Your task to perform on an android device: change the clock display to digital Image 0: 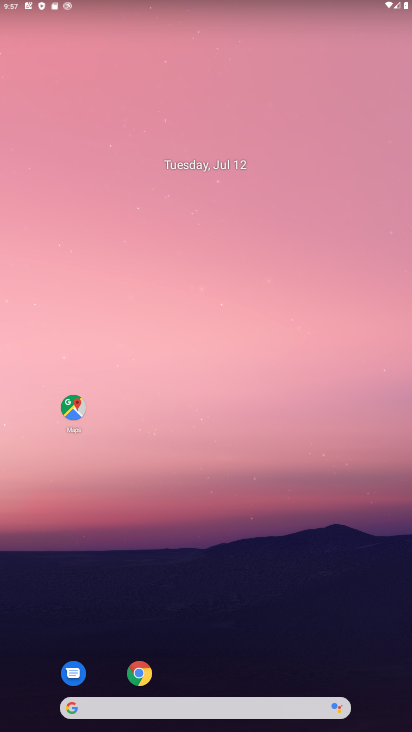
Step 0: click (185, 15)
Your task to perform on an android device: change the clock display to digital Image 1: 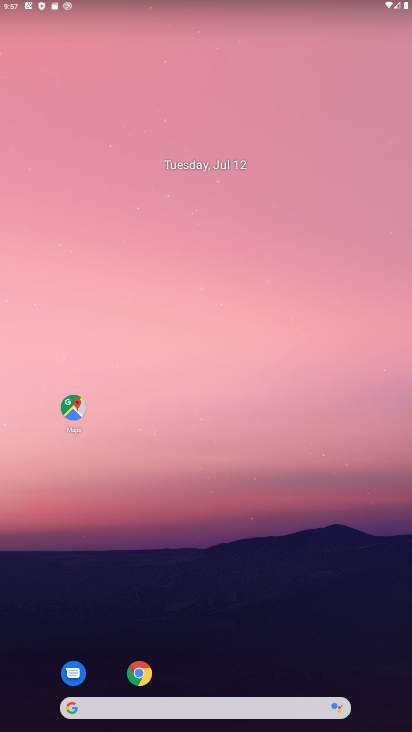
Step 1: drag from (199, 568) to (307, 88)
Your task to perform on an android device: change the clock display to digital Image 2: 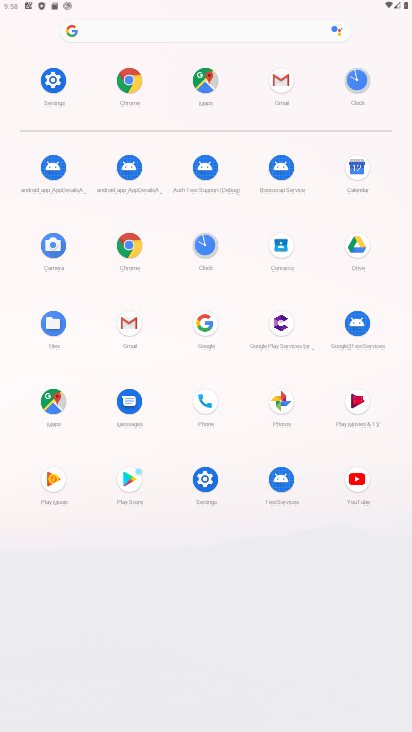
Step 2: click (205, 260)
Your task to perform on an android device: change the clock display to digital Image 3: 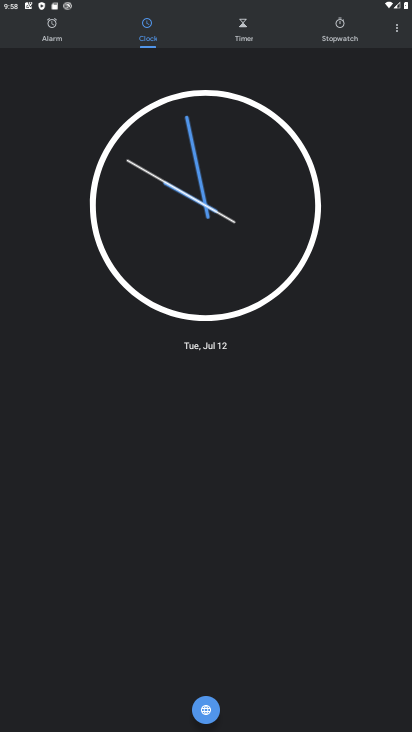
Step 3: click (398, 33)
Your task to perform on an android device: change the clock display to digital Image 4: 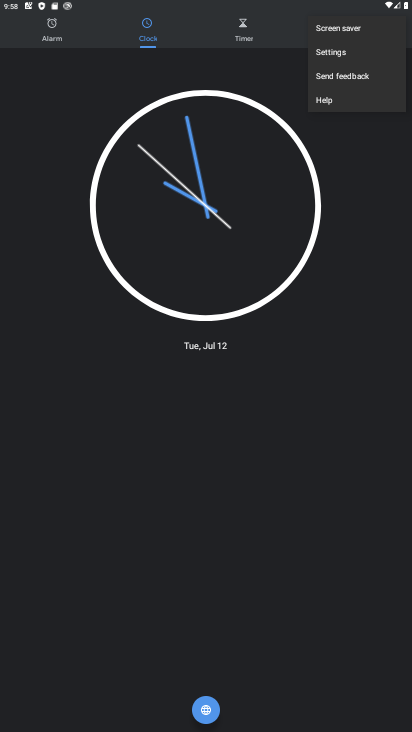
Step 4: click (398, 33)
Your task to perform on an android device: change the clock display to digital Image 5: 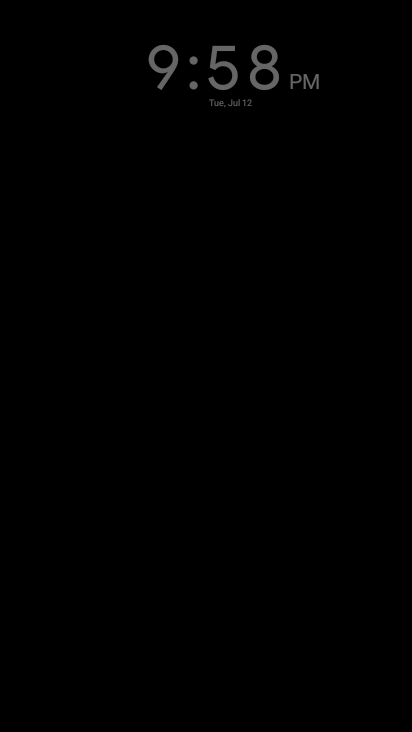
Step 5: click (338, 56)
Your task to perform on an android device: change the clock display to digital Image 6: 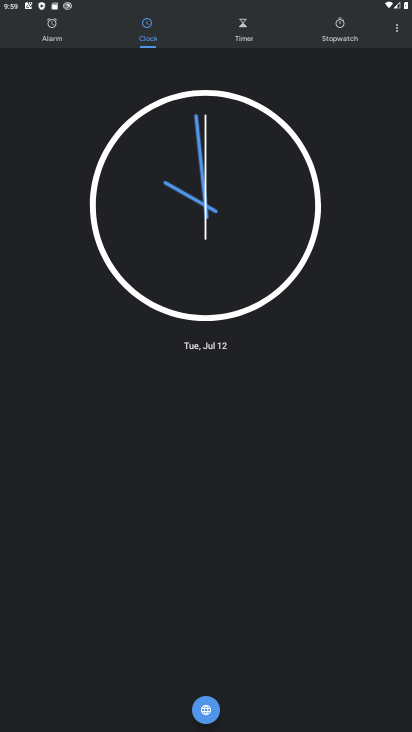
Step 6: click (398, 32)
Your task to perform on an android device: change the clock display to digital Image 7: 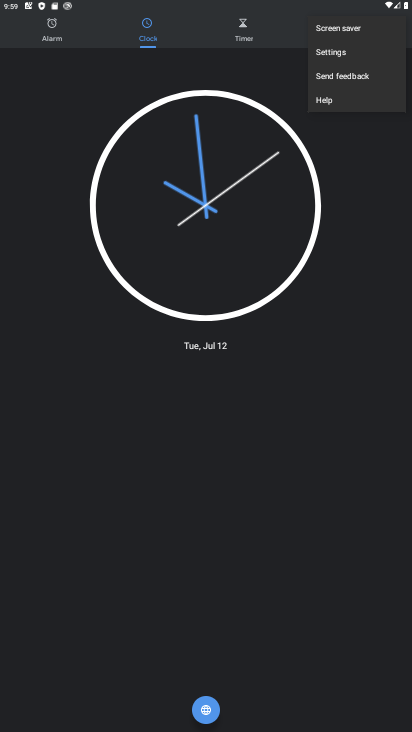
Step 7: click (336, 54)
Your task to perform on an android device: change the clock display to digital Image 8: 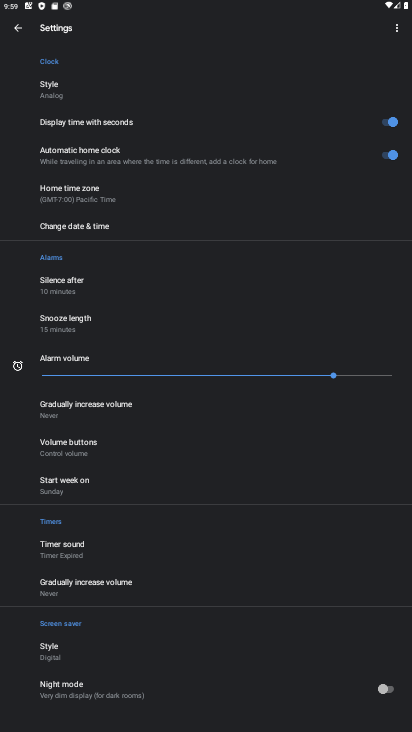
Step 8: click (53, 85)
Your task to perform on an android device: change the clock display to digital Image 9: 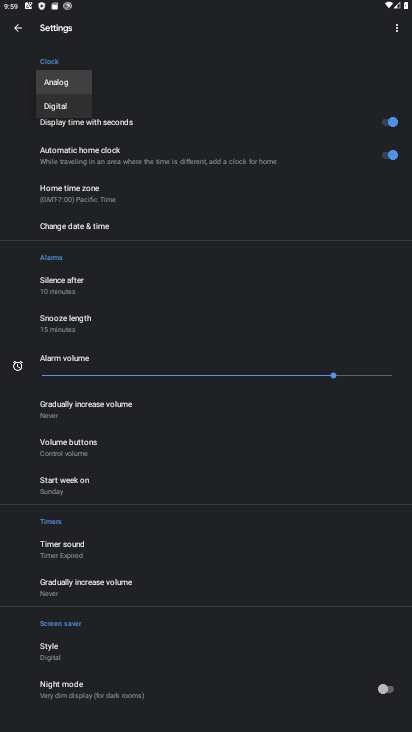
Step 9: click (52, 108)
Your task to perform on an android device: change the clock display to digital Image 10: 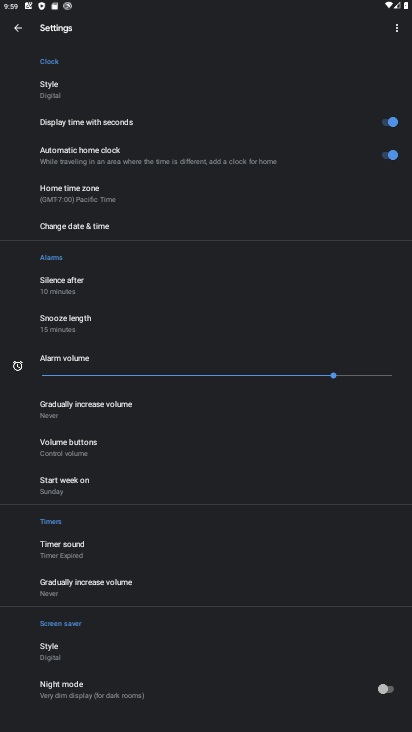
Step 10: task complete